Your task to perform on an android device: open app "Facebook Lite" (install if not already installed) and go to login screen Image 0: 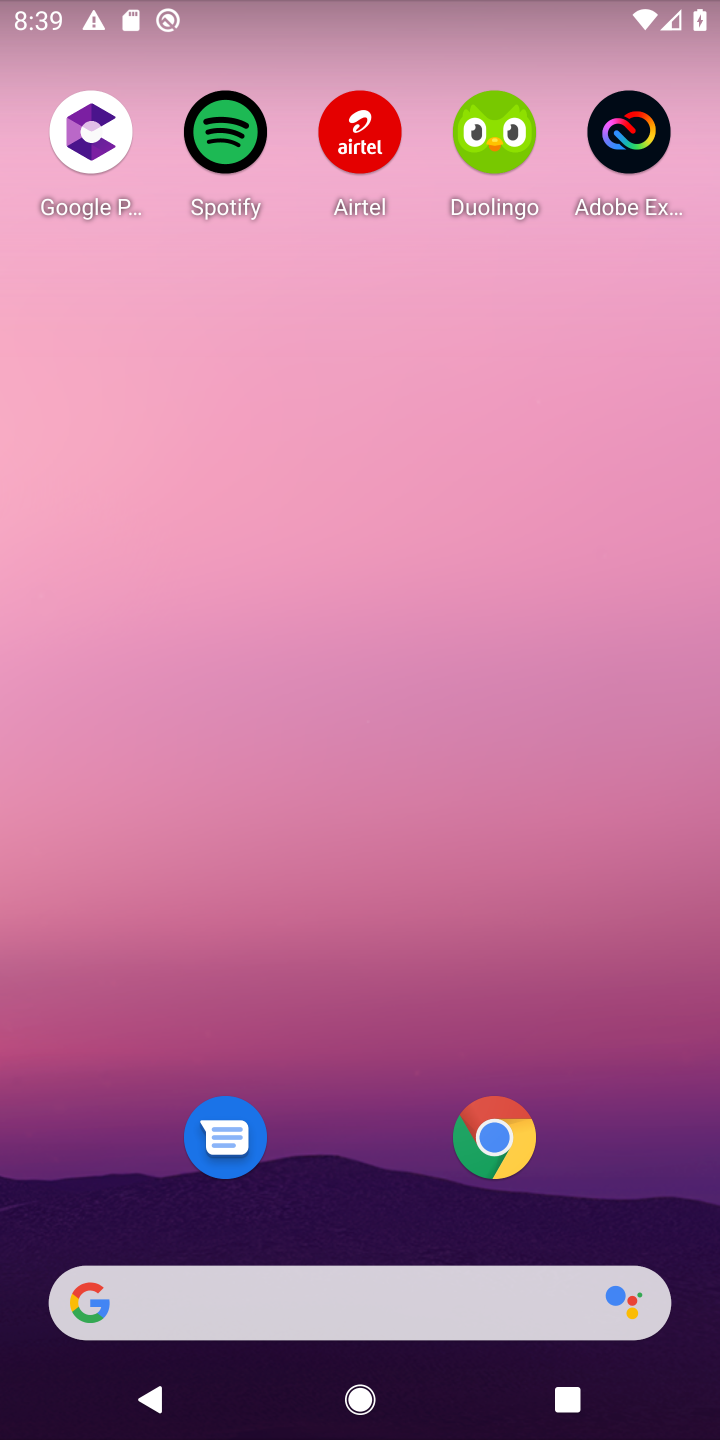
Step 0: press home button
Your task to perform on an android device: open app "Facebook Lite" (install if not already installed) and go to login screen Image 1: 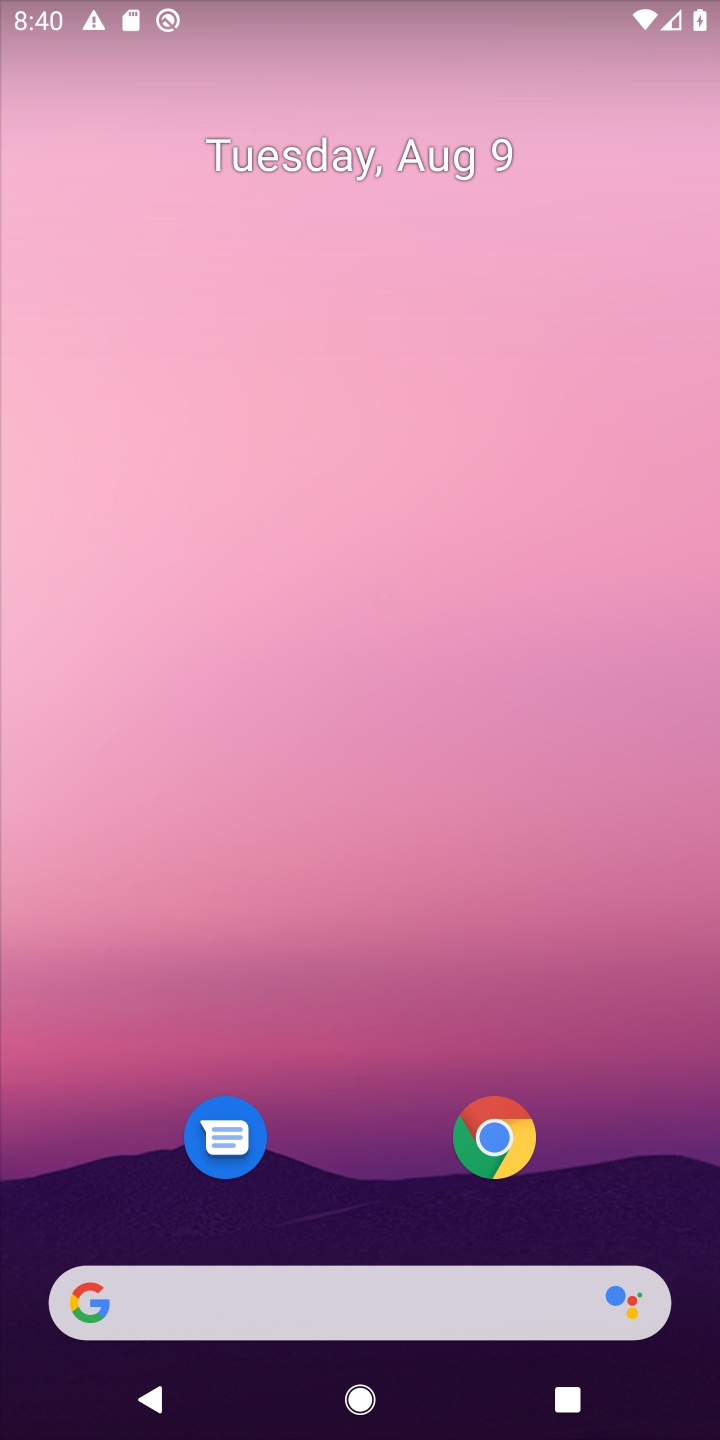
Step 1: drag from (607, 995) to (603, 90)
Your task to perform on an android device: open app "Facebook Lite" (install if not already installed) and go to login screen Image 2: 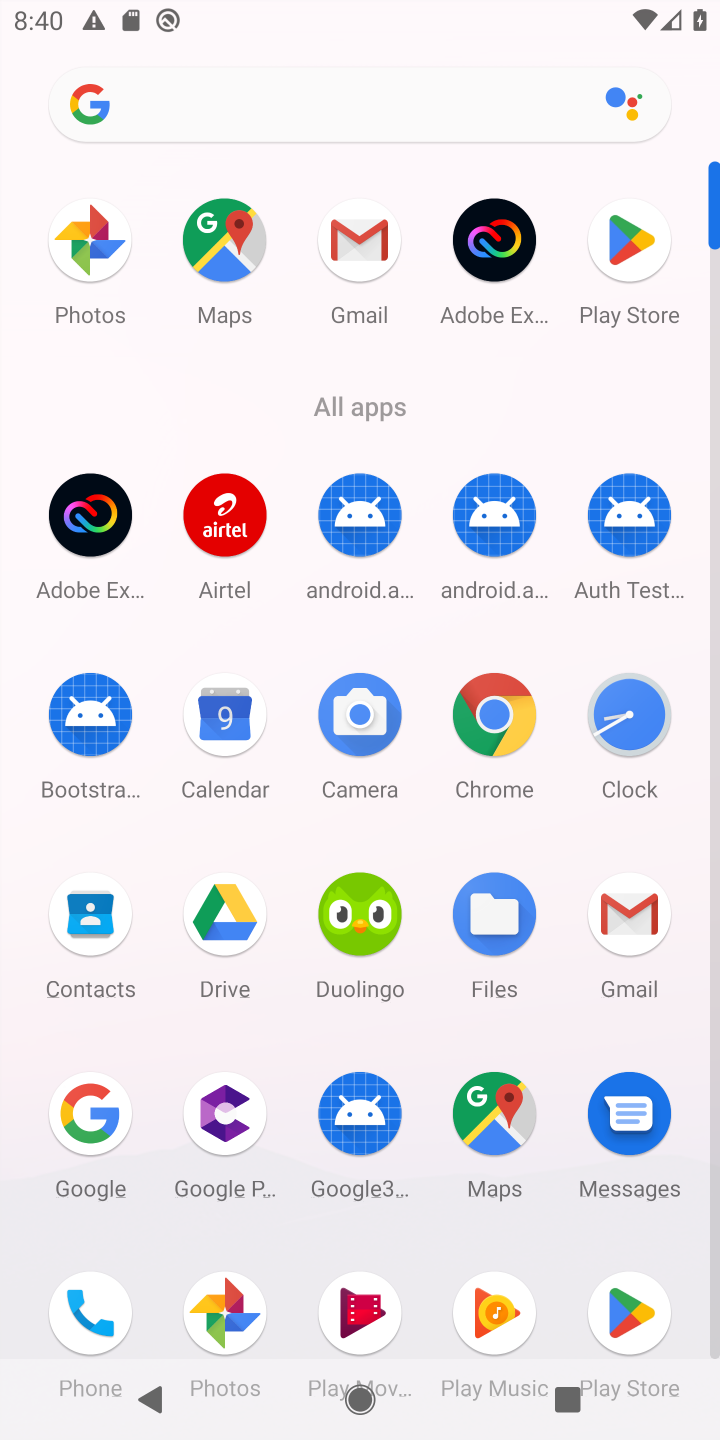
Step 2: click (622, 239)
Your task to perform on an android device: open app "Facebook Lite" (install if not already installed) and go to login screen Image 3: 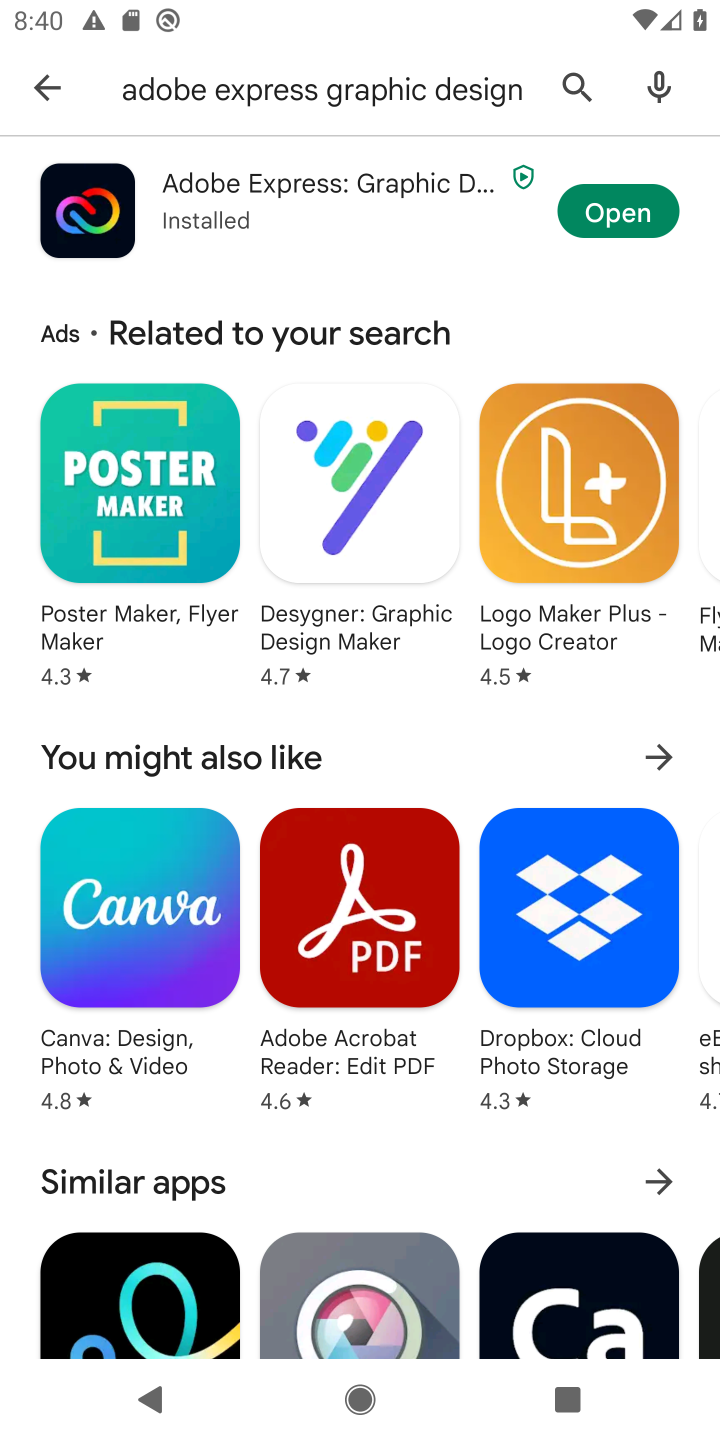
Step 3: click (569, 78)
Your task to perform on an android device: open app "Facebook Lite" (install if not already installed) and go to login screen Image 4: 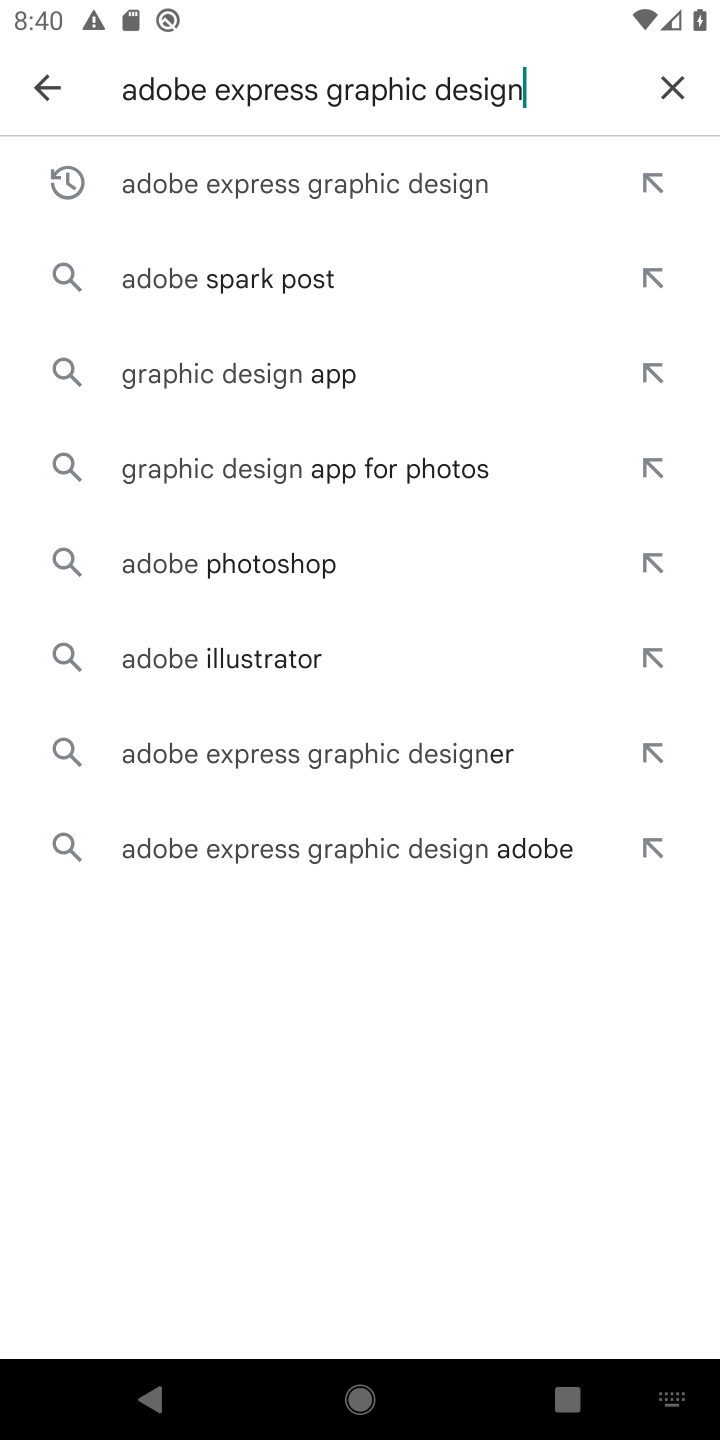
Step 4: click (673, 72)
Your task to perform on an android device: open app "Facebook Lite" (install if not already installed) and go to login screen Image 5: 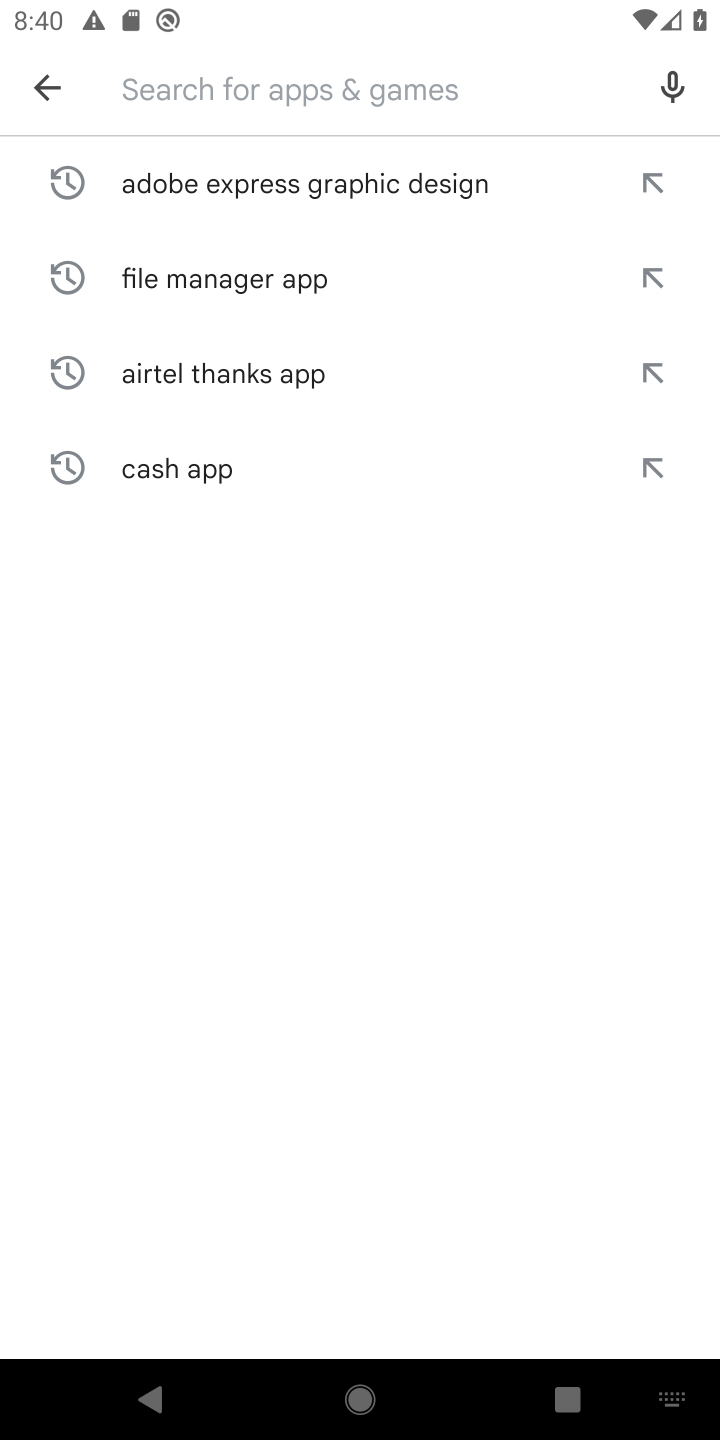
Step 5: type "facebook light "
Your task to perform on an android device: open app "Facebook Lite" (install if not already installed) and go to login screen Image 6: 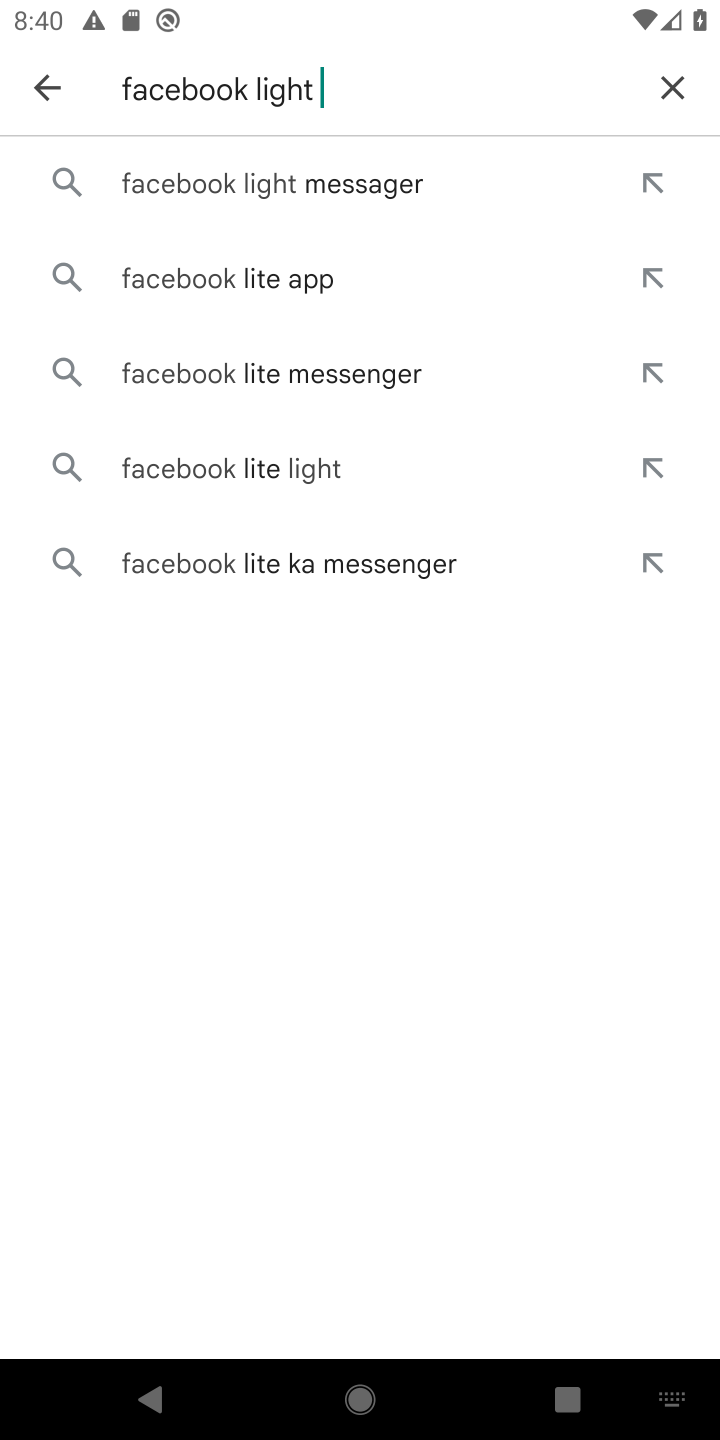
Step 6: click (305, 292)
Your task to perform on an android device: open app "Facebook Lite" (install if not already installed) and go to login screen Image 7: 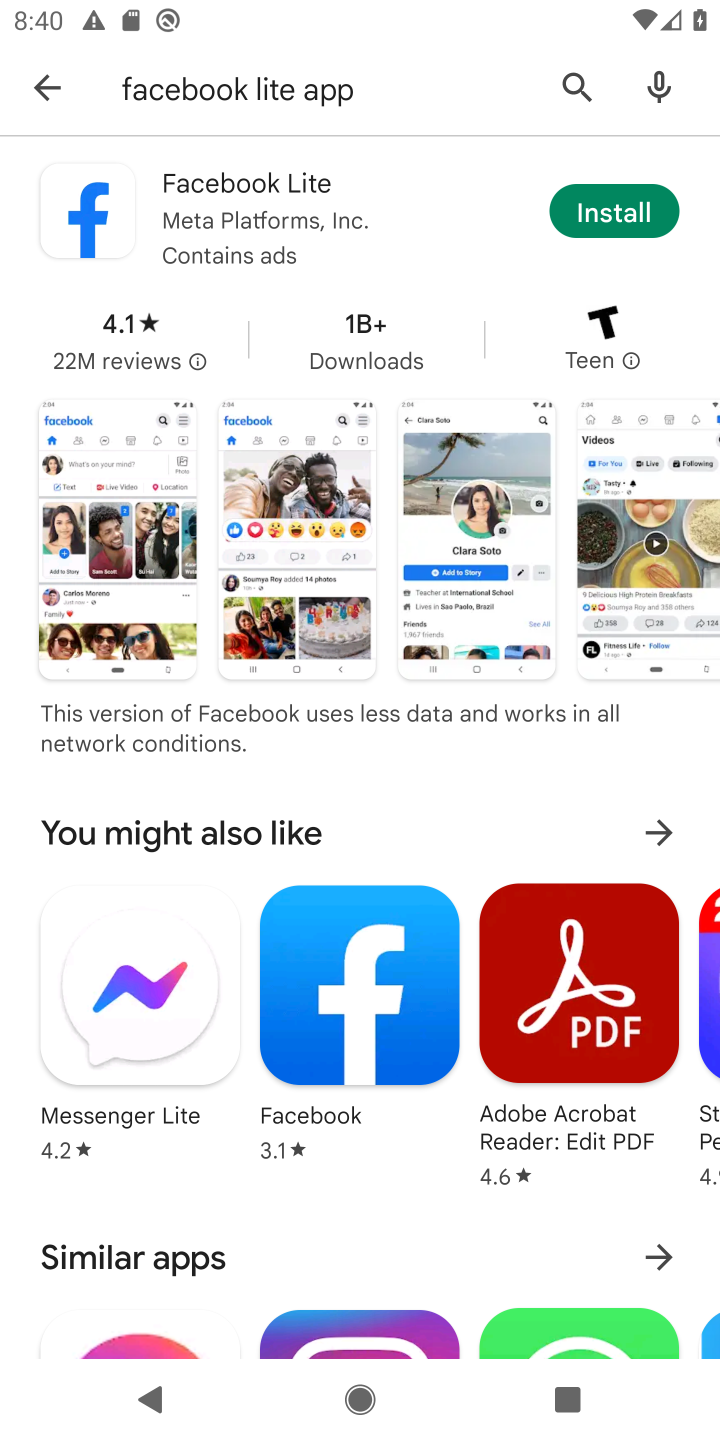
Step 7: click (612, 214)
Your task to perform on an android device: open app "Facebook Lite" (install if not already installed) and go to login screen Image 8: 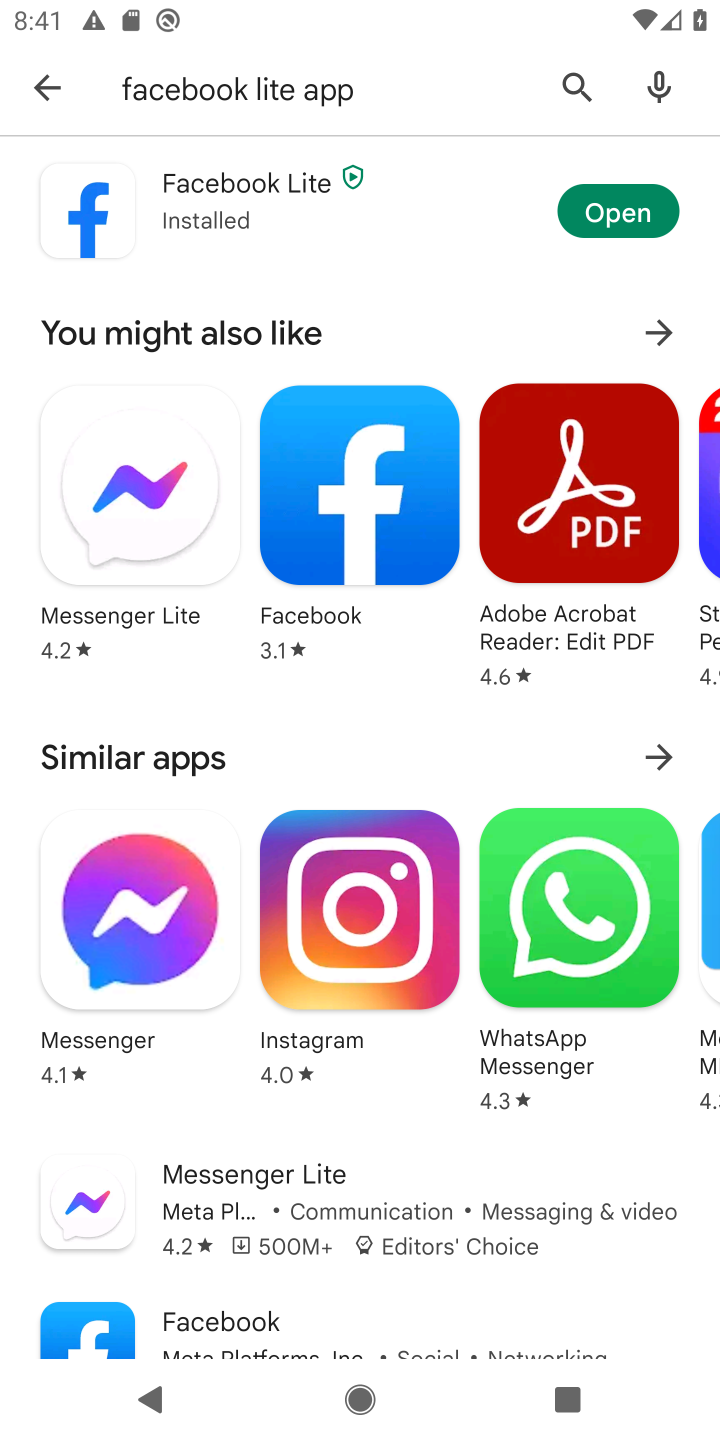
Step 8: click (601, 225)
Your task to perform on an android device: open app "Facebook Lite" (install if not already installed) and go to login screen Image 9: 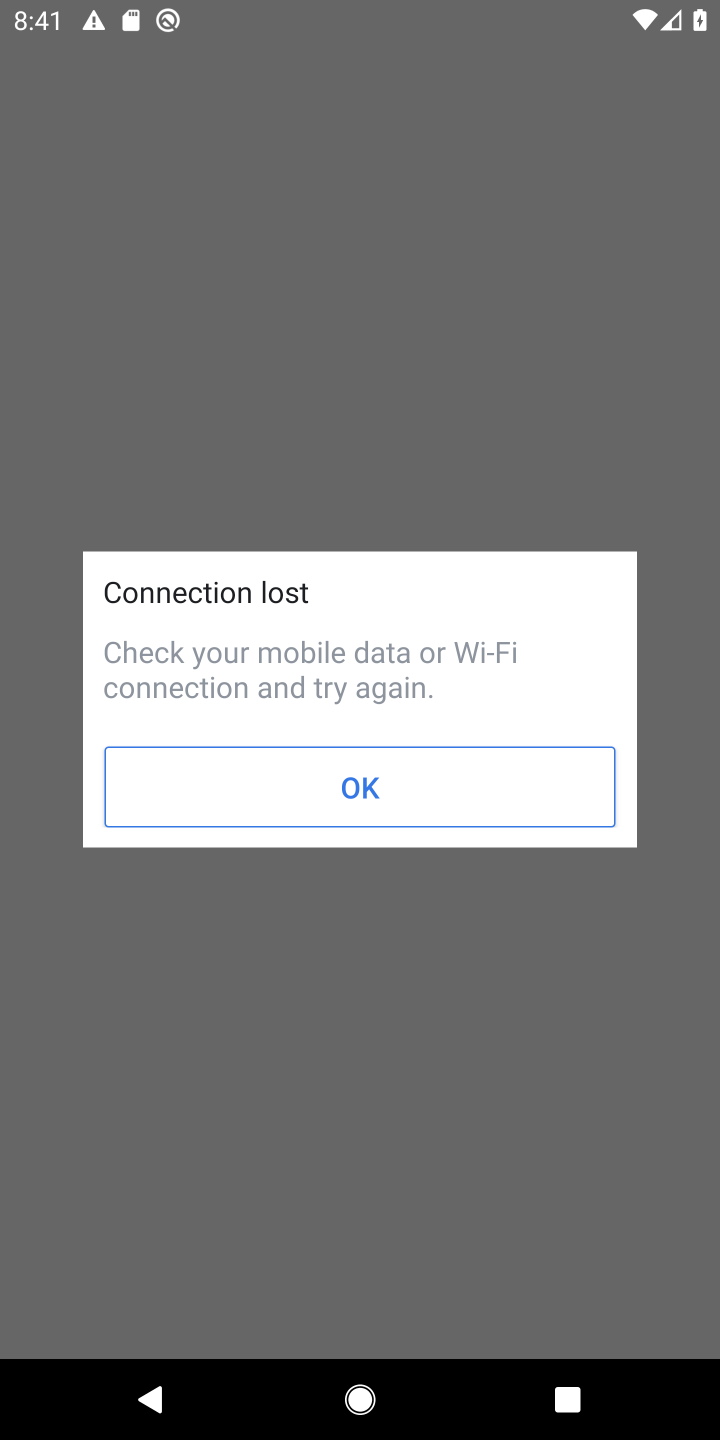
Step 9: click (422, 775)
Your task to perform on an android device: open app "Facebook Lite" (install if not already installed) and go to login screen Image 10: 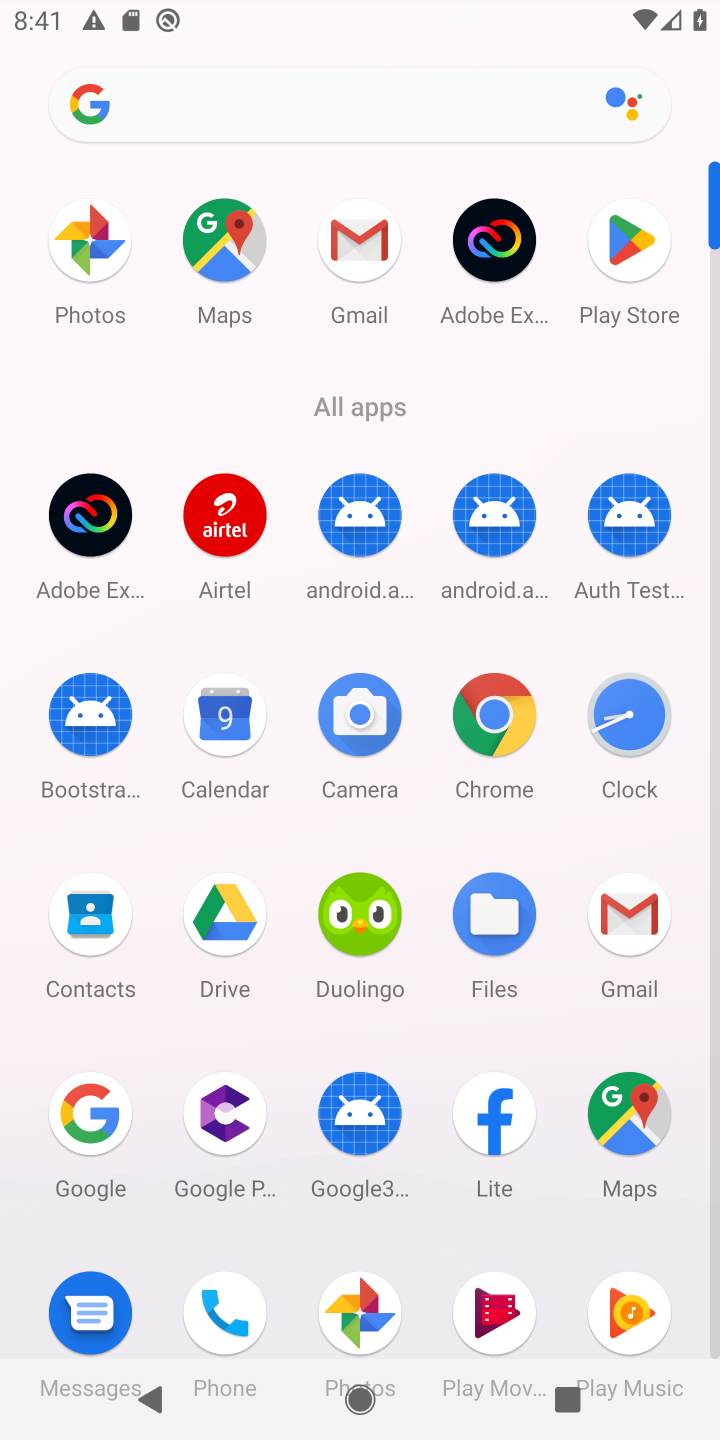
Step 10: click (507, 1115)
Your task to perform on an android device: open app "Facebook Lite" (install if not already installed) and go to login screen Image 11: 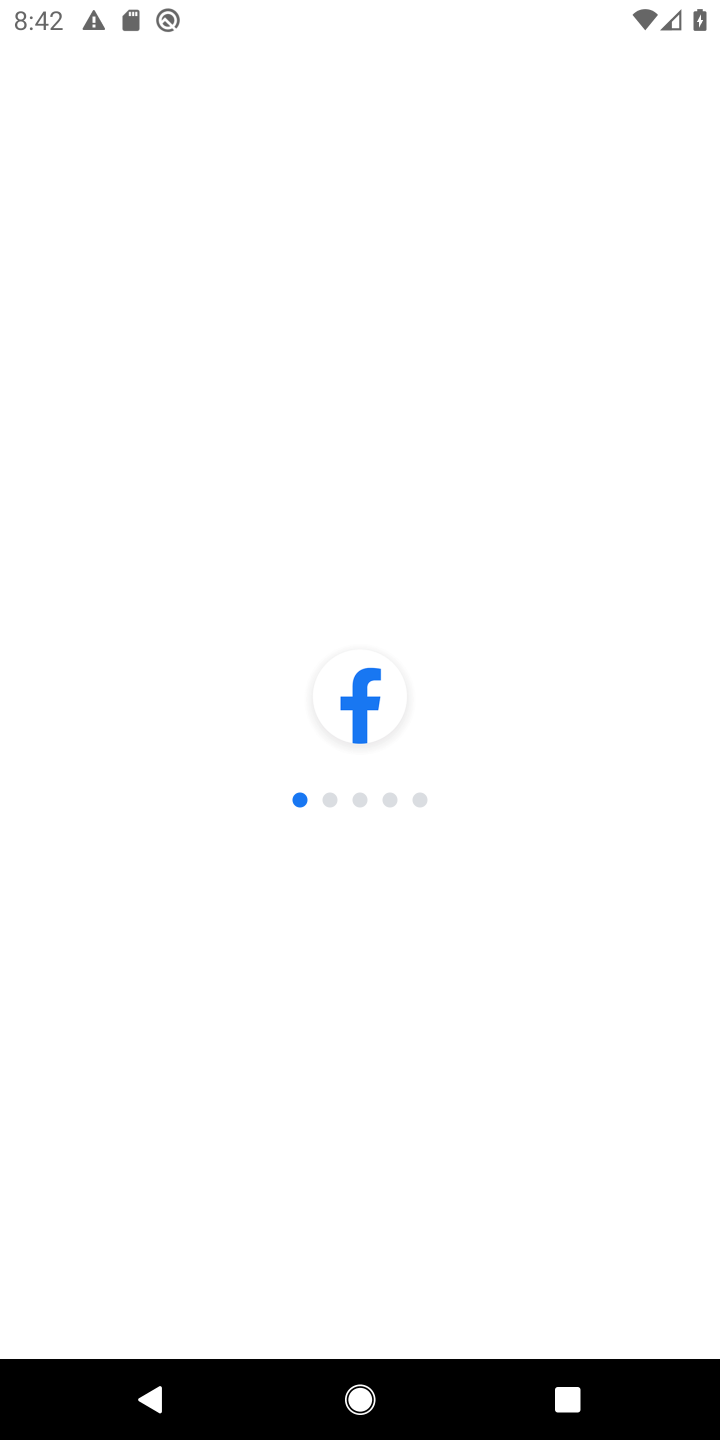
Step 11: task complete